Your task to perform on an android device: turn off wifi Image 0: 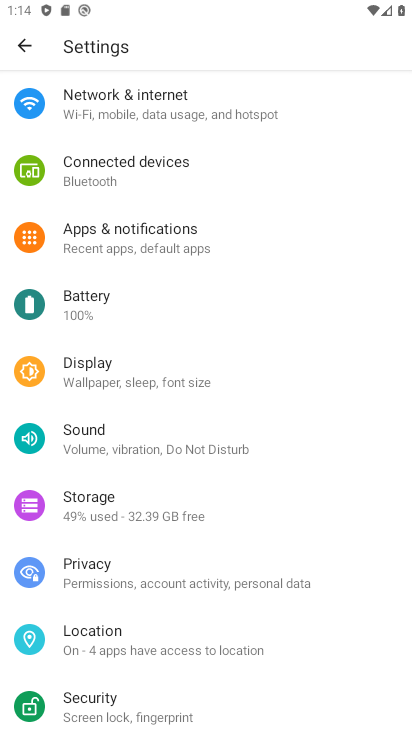
Step 0: click (138, 107)
Your task to perform on an android device: turn off wifi Image 1: 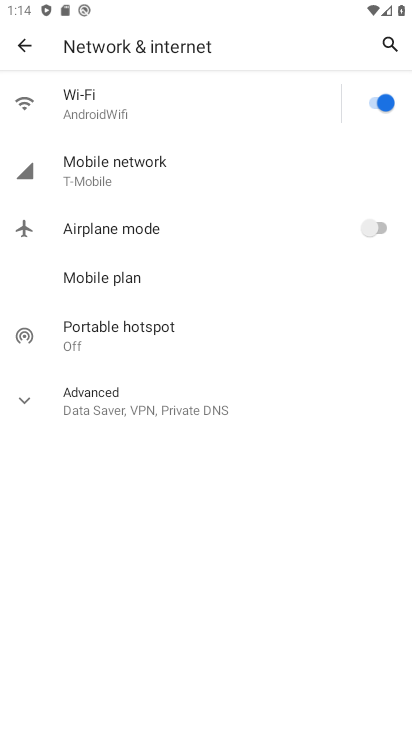
Step 1: click (131, 112)
Your task to perform on an android device: turn off wifi Image 2: 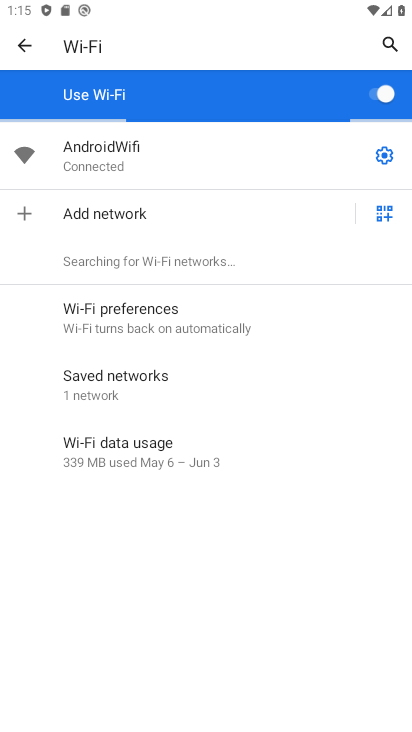
Step 2: task complete